Your task to perform on an android device: turn on priority inbox in the gmail app Image 0: 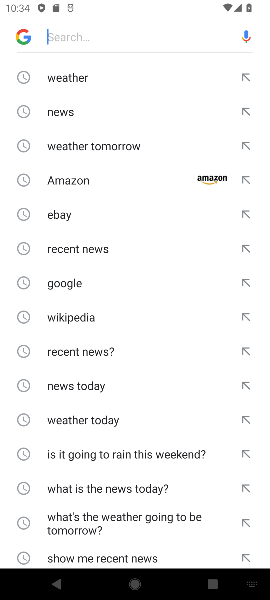
Step 0: press back button
Your task to perform on an android device: turn on priority inbox in the gmail app Image 1: 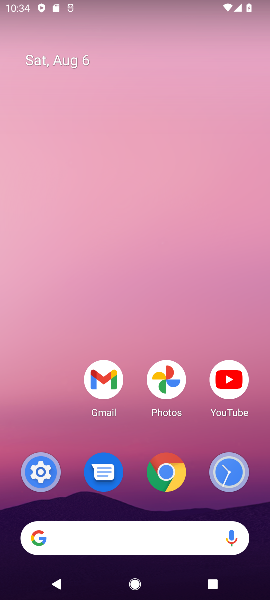
Step 1: drag from (151, 541) to (80, 84)
Your task to perform on an android device: turn on priority inbox in the gmail app Image 2: 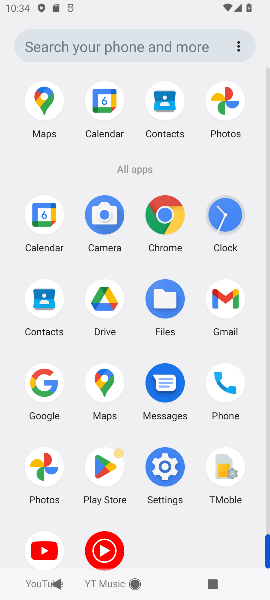
Step 2: click (221, 306)
Your task to perform on an android device: turn on priority inbox in the gmail app Image 3: 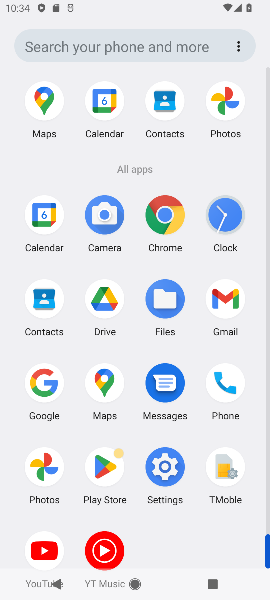
Step 3: click (221, 306)
Your task to perform on an android device: turn on priority inbox in the gmail app Image 4: 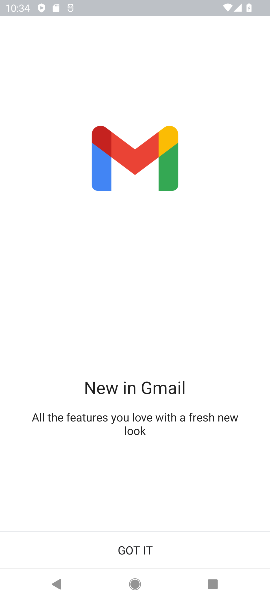
Step 4: click (153, 544)
Your task to perform on an android device: turn on priority inbox in the gmail app Image 5: 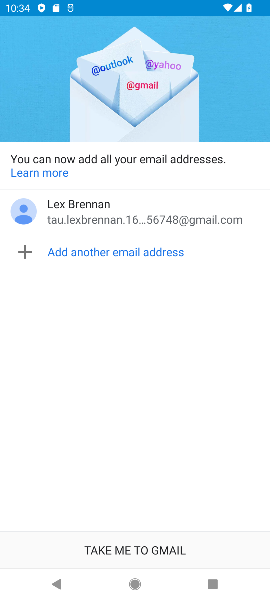
Step 5: click (148, 548)
Your task to perform on an android device: turn on priority inbox in the gmail app Image 6: 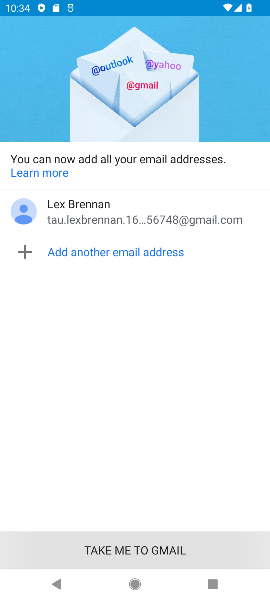
Step 6: click (148, 548)
Your task to perform on an android device: turn on priority inbox in the gmail app Image 7: 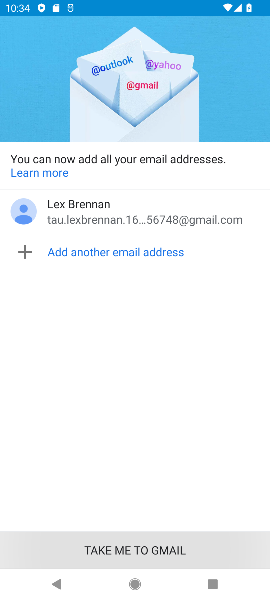
Step 7: click (148, 548)
Your task to perform on an android device: turn on priority inbox in the gmail app Image 8: 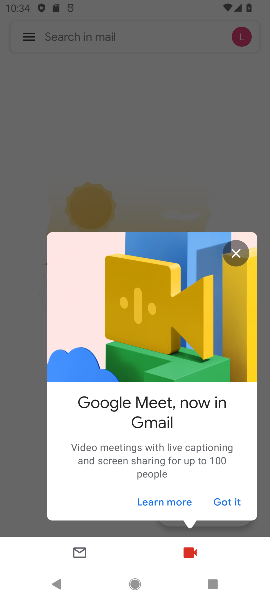
Step 8: click (227, 247)
Your task to perform on an android device: turn on priority inbox in the gmail app Image 9: 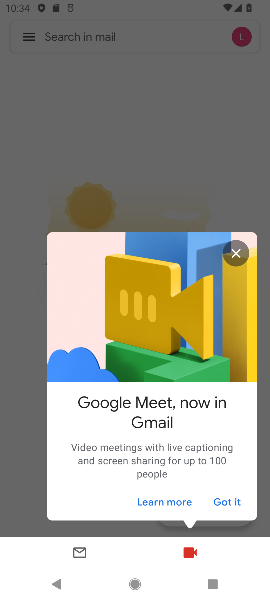
Step 9: click (227, 248)
Your task to perform on an android device: turn on priority inbox in the gmail app Image 10: 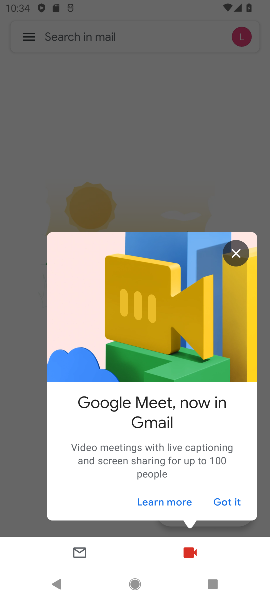
Step 10: click (227, 248)
Your task to perform on an android device: turn on priority inbox in the gmail app Image 11: 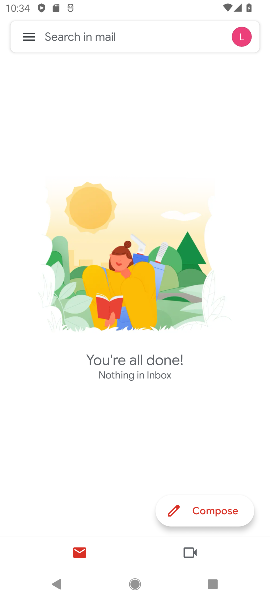
Step 11: click (227, 248)
Your task to perform on an android device: turn on priority inbox in the gmail app Image 12: 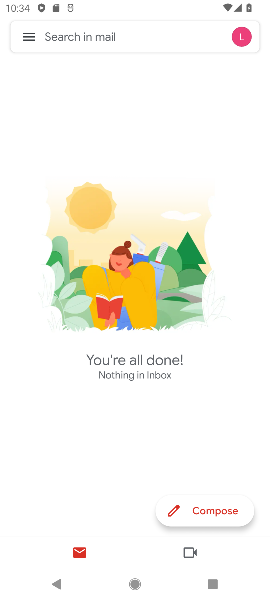
Step 12: click (227, 248)
Your task to perform on an android device: turn on priority inbox in the gmail app Image 13: 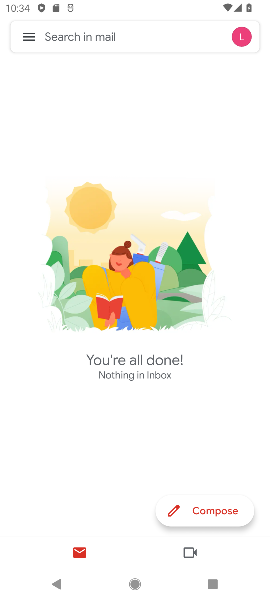
Step 13: click (21, 38)
Your task to perform on an android device: turn on priority inbox in the gmail app Image 14: 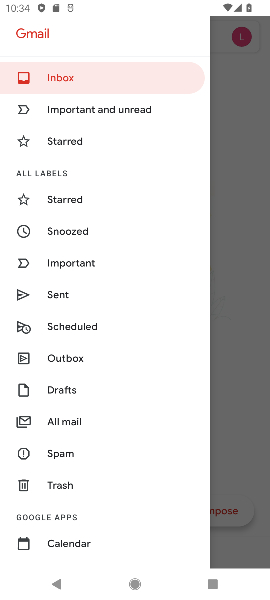
Step 14: drag from (83, 496) to (80, 192)
Your task to perform on an android device: turn on priority inbox in the gmail app Image 15: 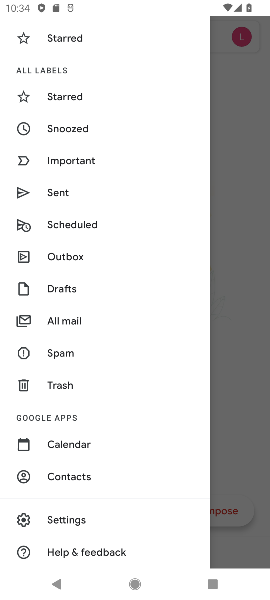
Step 15: drag from (96, 443) to (95, 211)
Your task to perform on an android device: turn on priority inbox in the gmail app Image 16: 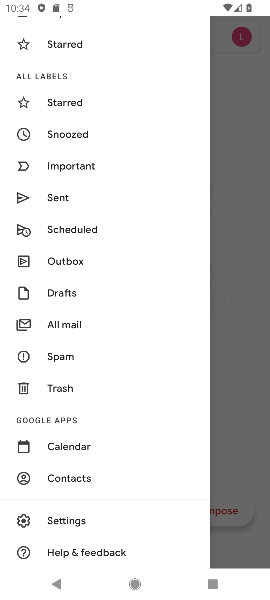
Step 16: click (60, 520)
Your task to perform on an android device: turn on priority inbox in the gmail app Image 17: 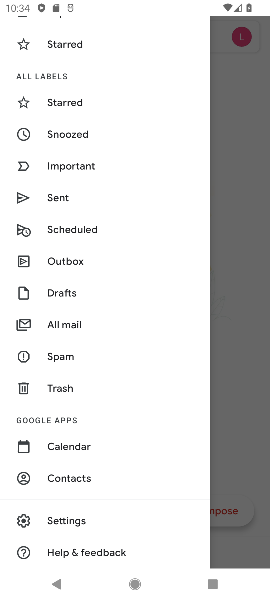
Step 17: click (60, 520)
Your task to perform on an android device: turn on priority inbox in the gmail app Image 18: 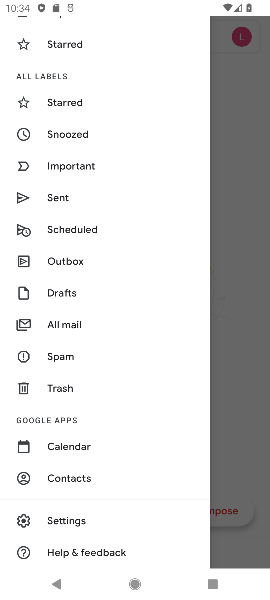
Step 18: click (60, 520)
Your task to perform on an android device: turn on priority inbox in the gmail app Image 19: 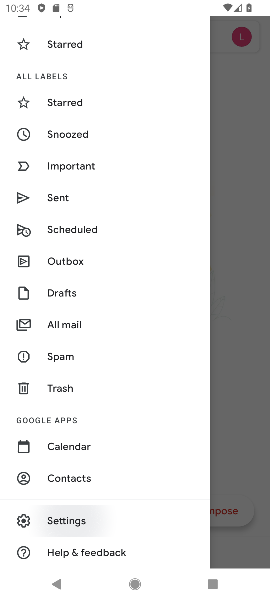
Step 19: click (60, 520)
Your task to perform on an android device: turn on priority inbox in the gmail app Image 20: 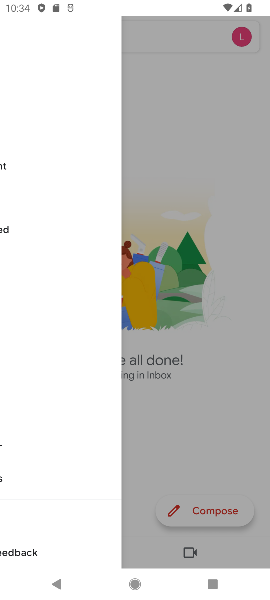
Step 20: click (63, 519)
Your task to perform on an android device: turn on priority inbox in the gmail app Image 21: 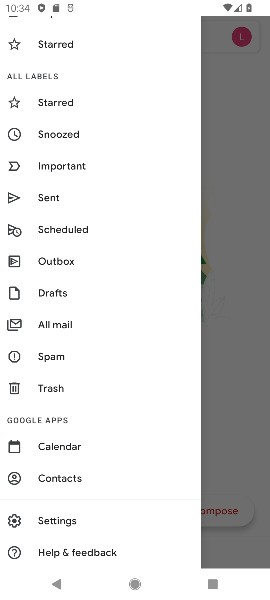
Step 21: click (63, 519)
Your task to perform on an android device: turn on priority inbox in the gmail app Image 22: 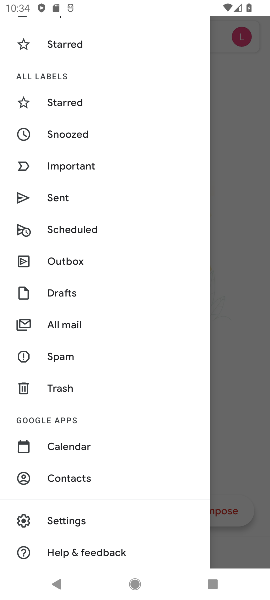
Step 22: click (64, 510)
Your task to perform on an android device: turn on priority inbox in the gmail app Image 23: 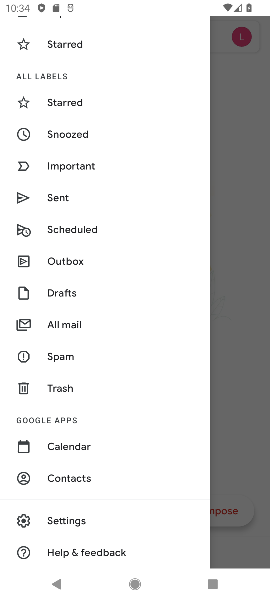
Step 23: click (68, 523)
Your task to perform on an android device: turn on priority inbox in the gmail app Image 24: 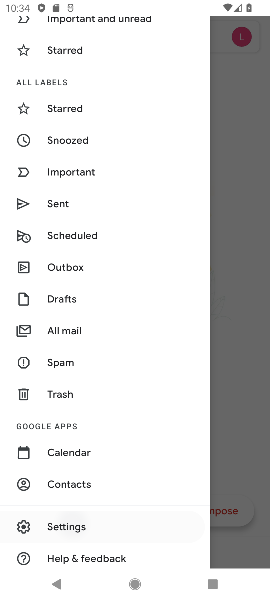
Step 24: click (71, 520)
Your task to perform on an android device: turn on priority inbox in the gmail app Image 25: 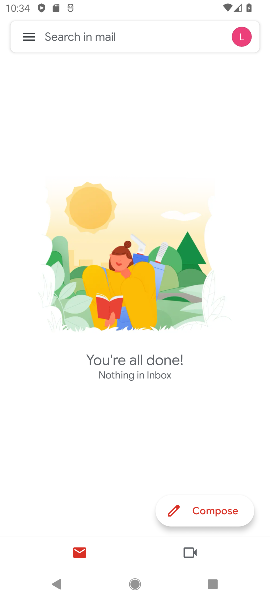
Step 25: click (69, 523)
Your task to perform on an android device: turn on priority inbox in the gmail app Image 26: 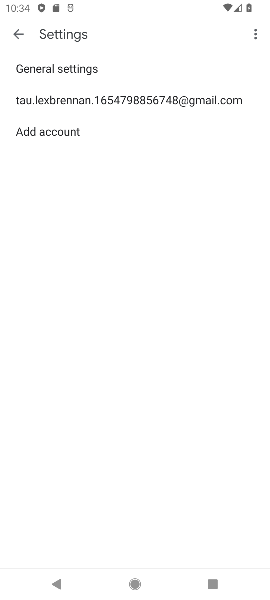
Step 26: click (98, 92)
Your task to perform on an android device: turn on priority inbox in the gmail app Image 27: 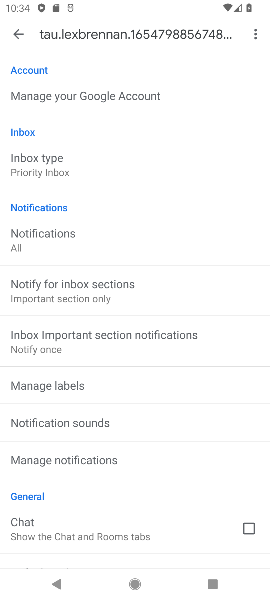
Step 27: task complete